Your task to perform on an android device: snooze an email in the gmail app Image 0: 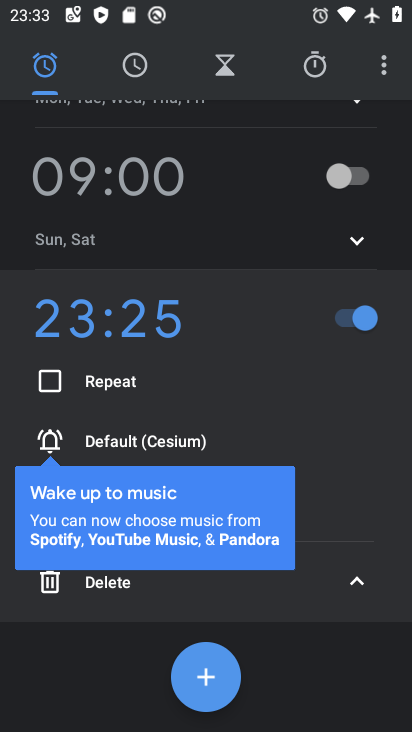
Step 0: press back button
Your task to perform on an android device: snooze an email in the gmail app Image 1: 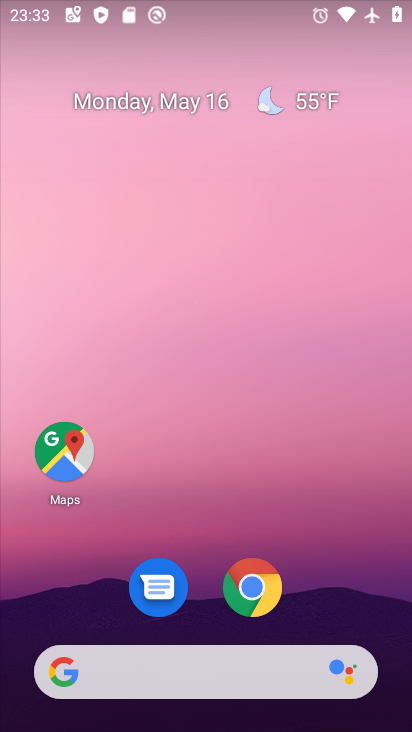
Step 1: drag from (302, 552) to (213, 10)
Your task to perform on an android device: snooze an email in the gmail app Image 2: 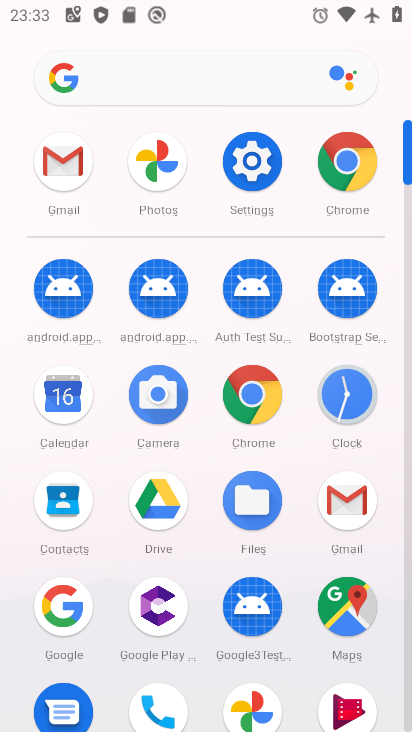
Step 2: drag from (6, 592) to (30, 268)
Your task to perform on an android device: snooze an email in the gmail app Image 3: 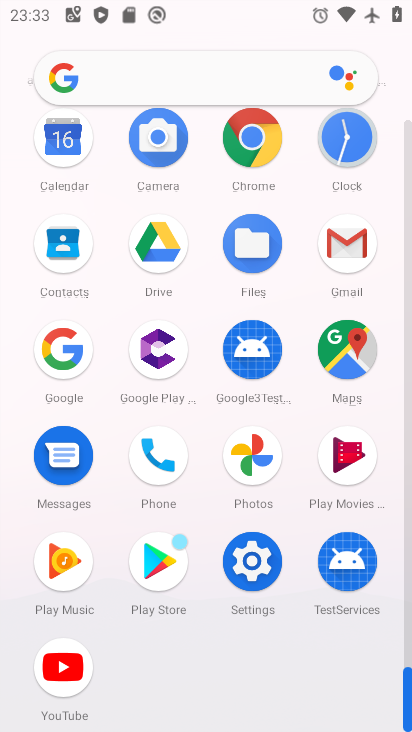
Step 3: click (344, 235)
Your task to perform on an android device: snooze an email in the gmail app Image 4: 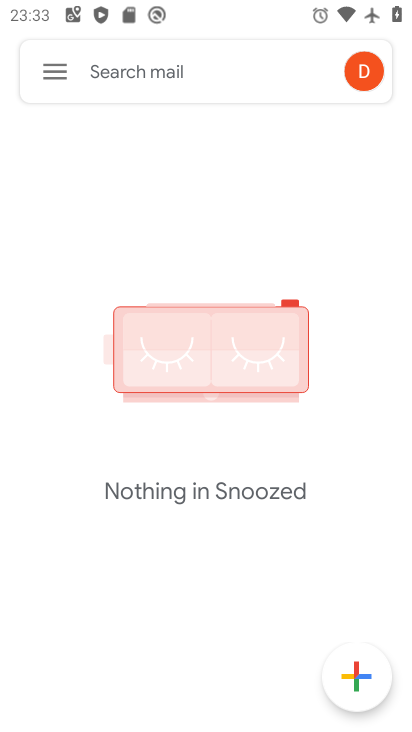
Step 4: click (45, 71)
Your task to perform on an android device: snooze an email in the gmail app Image 5: 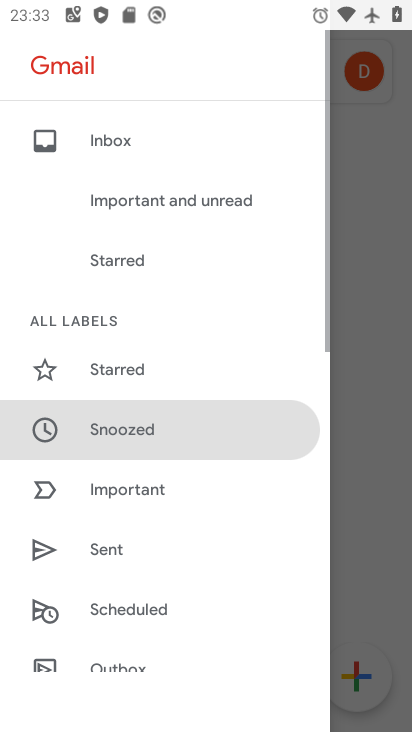
Step 5: drag from (183, 570) to (179, 173)
Your task to perform on an android device: snooze an email in the gmail app Image 6: 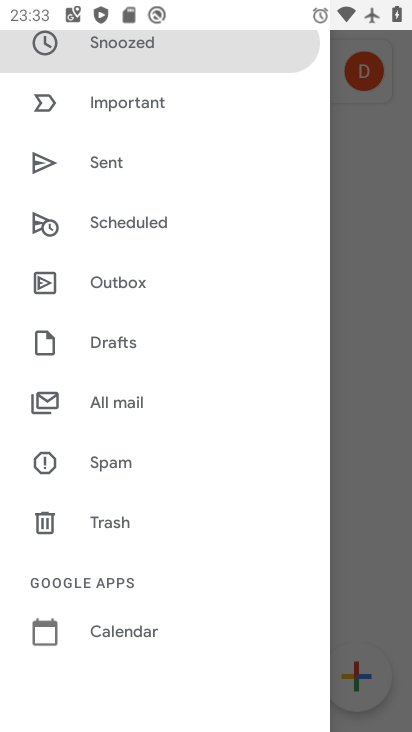
Step 6: drag from (229, 516) to (203, 155)
Your task to perform on an android device: snooze an email in the gmail app Image 7: 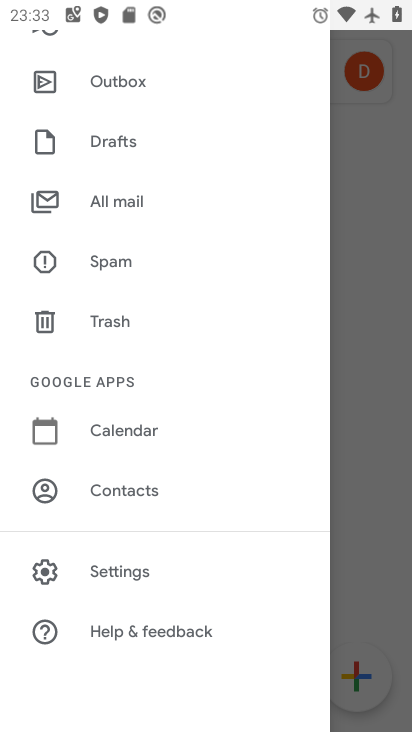
Step 7: click (121, 566)
Your task to perform on an android device: snooze an email in the gmail app Image 8: 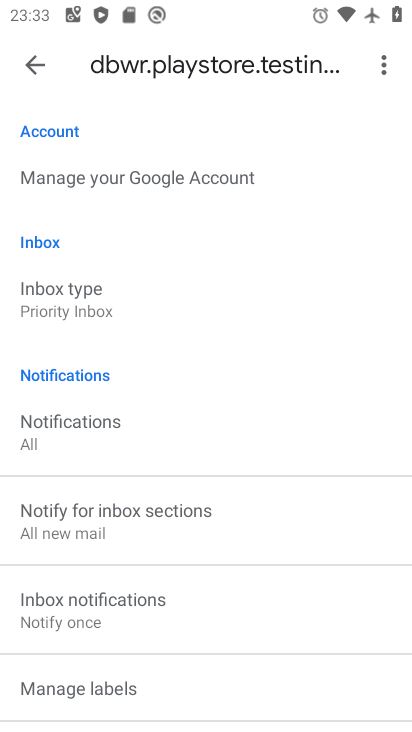
Step 8: drag from (163, 521) to (152, 187)
Your task to perform on an android device: snooze an email in the gmail app Image 9: 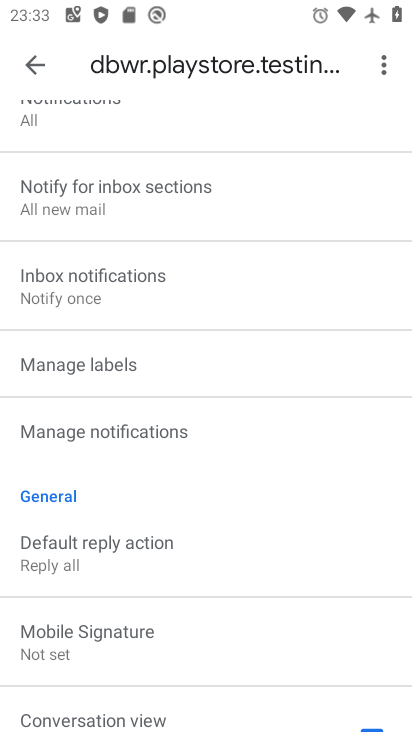
Step 9: drag from (244, 490) to (244, 153)
Your task to perform on an android device: snooze an email in the gmail app Image 10: 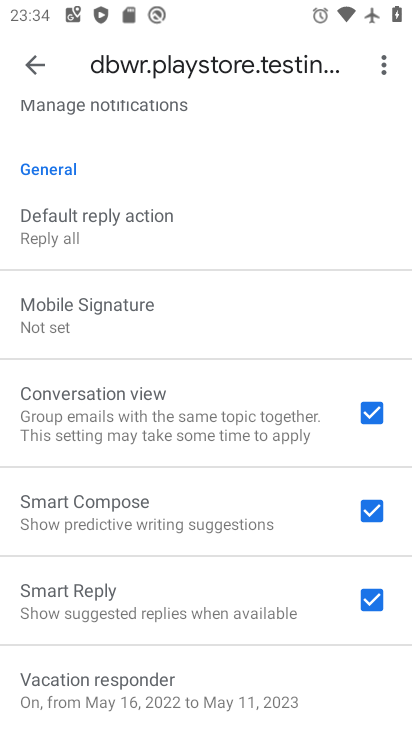
Step 10: drag from (237, 214) to (206, 533)
Your task to perform on an android device: snooze an email in the gmail app Image 11: 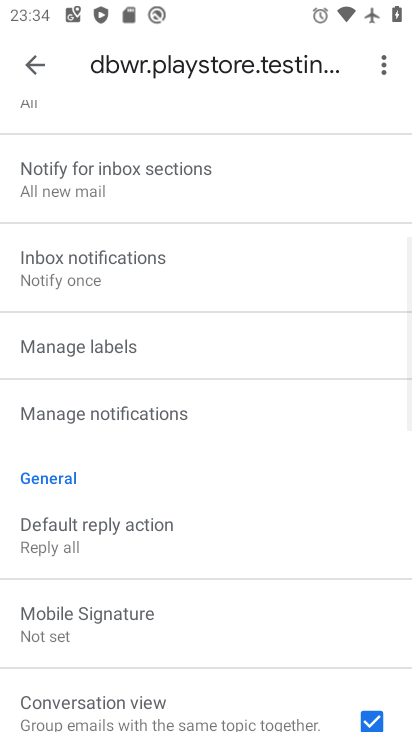
Step 11: drag from (208, 195) to (245, 554)
Your task to perform on an android device: snooze an email in the gmail app Image 12: 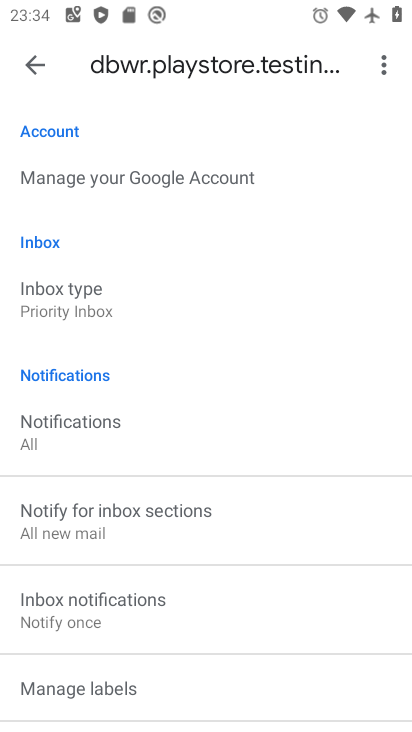
Step 12: click (33, 55)
Your task to perform on an android device: snooze an email in the gmail app Image 13: 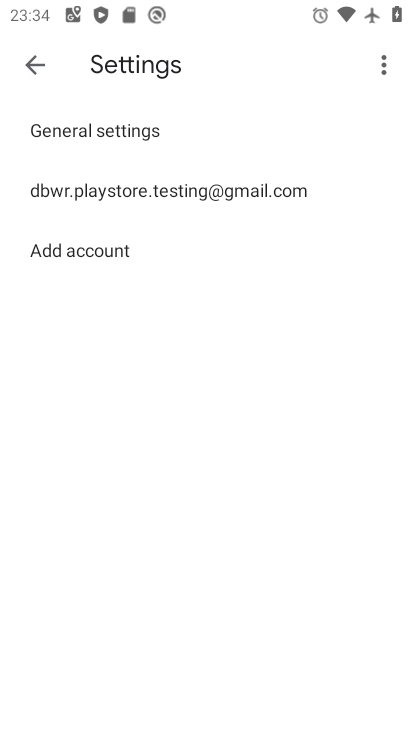
Step 13: click (33, 56)
Your task to perform on an android device: snooze an email in the gmail app Image 14: 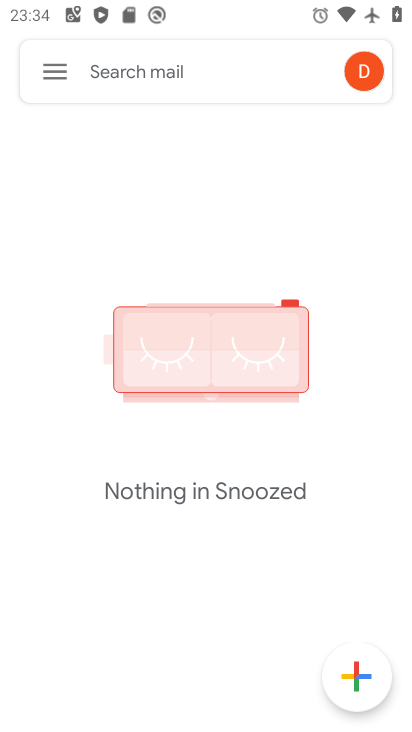
Step 14: click (41, 58)
Your task to perform on an android device: snooze an email in the gmail app Image 15: 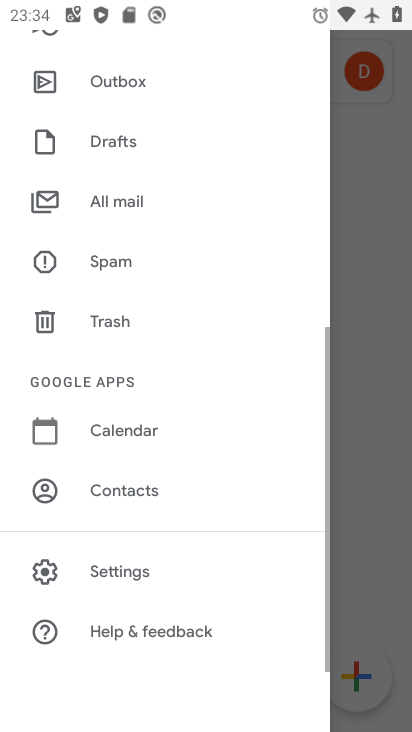
Step 15: drag from (106, 92) to (138, 364)
Your task to perform on an android device: snooze an email in the gmail app Image 16: 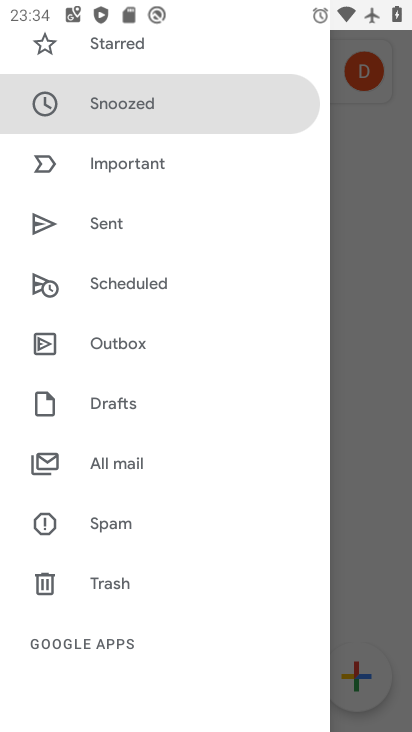
Step 16: click (139, 465)
Your task to perform on an android device: snooze an email in the gmail app Image 17: 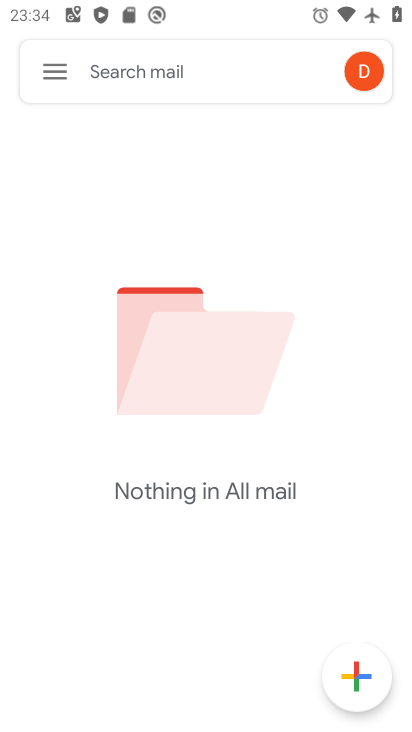
Step 17: task complete